Your task to perform on an android device: Open settings on Google Maps Image 0: 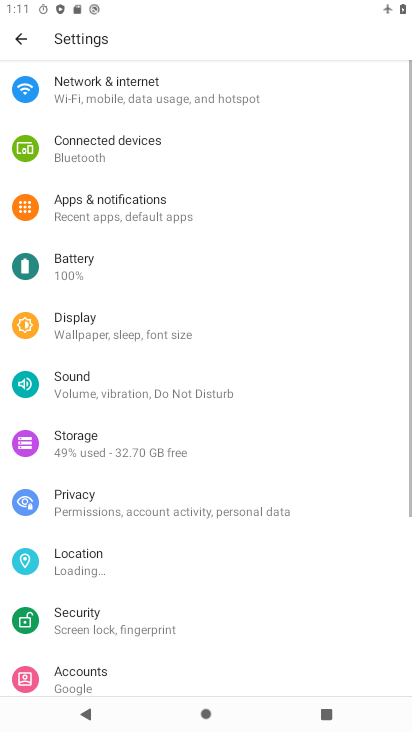
Step 0: press home button
Your task to perform on an android device: Open settings on Google Maps Image 1: 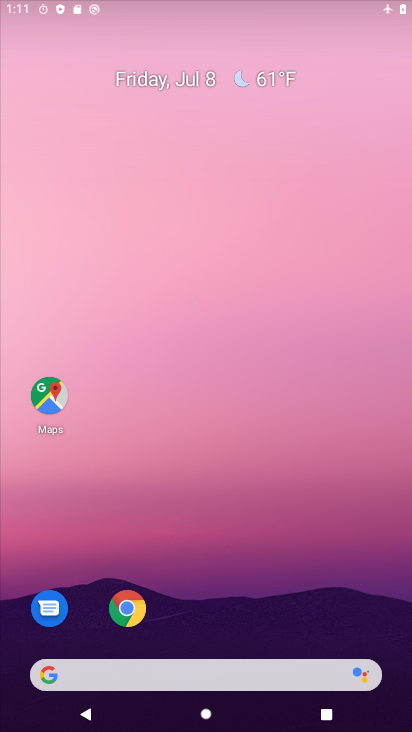
Step 1: drag from (233, 605) to (296, 159)
Your task to perform on an android device: Open settings on Google Maps Image 2: 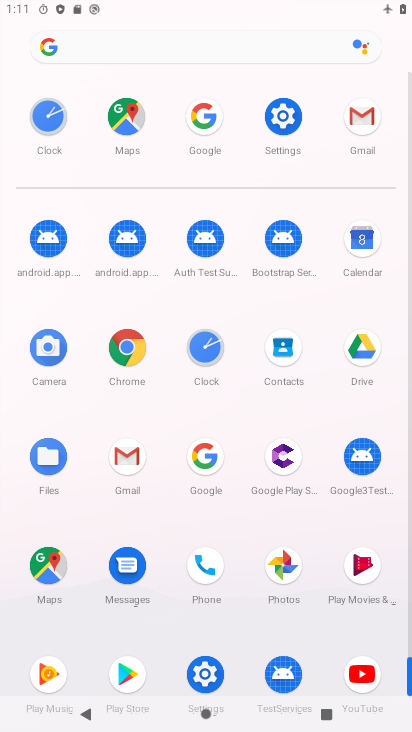
Step 2: click (123, 112)
Your task to perform on an android device: Open settings on Google Maps Image 3: 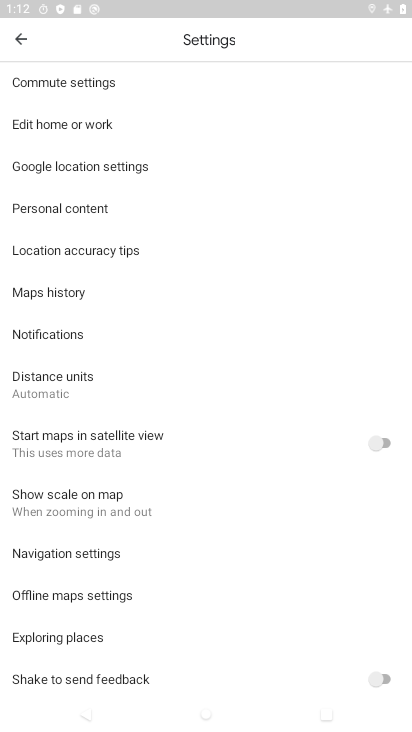
Step 3: task complete